Your task to perform on an android device: install app "Facebook" Image 0: 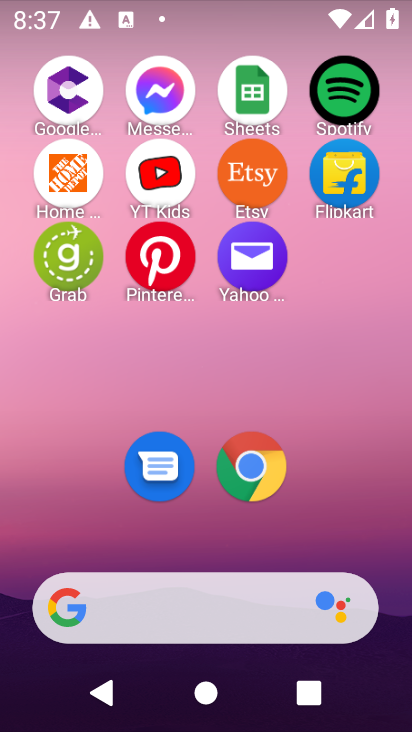
Step 0: drag from (230, 558) to (220, 98)
Your task to perform on an android device: install app "Facebook" Image 1: 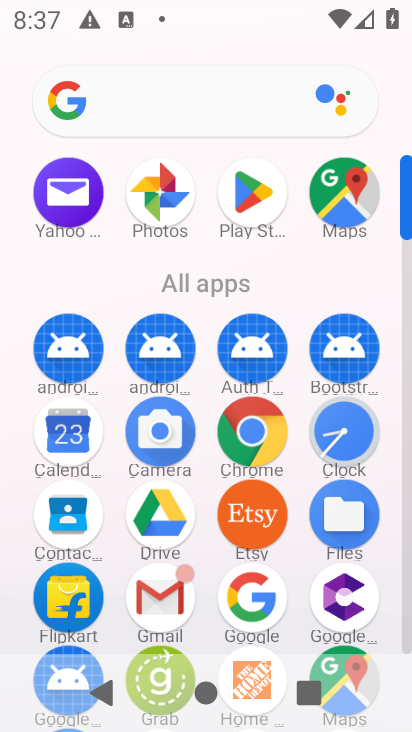
Step 1: click (249, 188)
Your task to perform on an android device: install app "Facebook" Image 2: 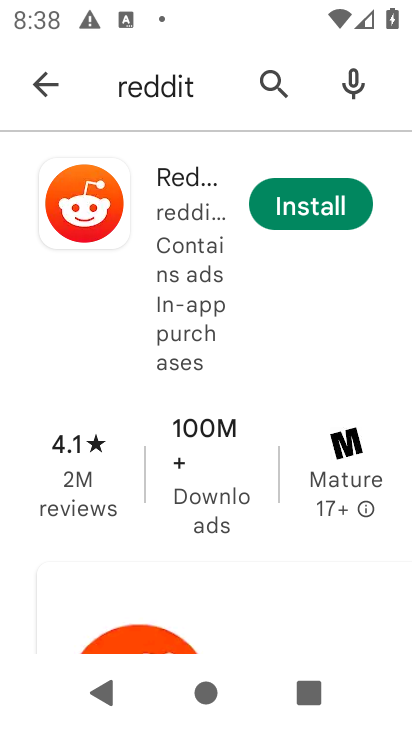
Step 2: click (291, 73)
Your task to perform on an android device: install app "Facebook" Image 3: 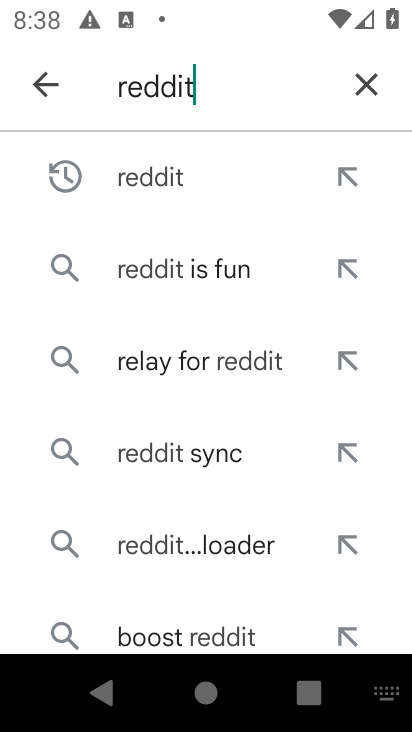
Step 3: click (380, 84)
Your task to perform on an android device: install app "Facebook" Image 4: 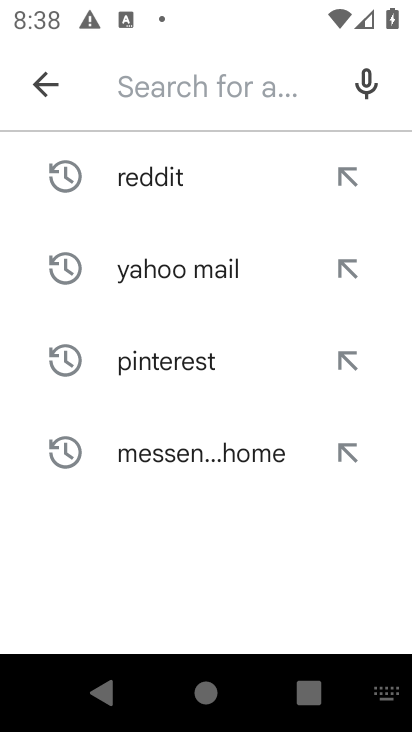
Step 4: type "facebook"
Your task to perform on an android device: install app "Facebook" Image 5: 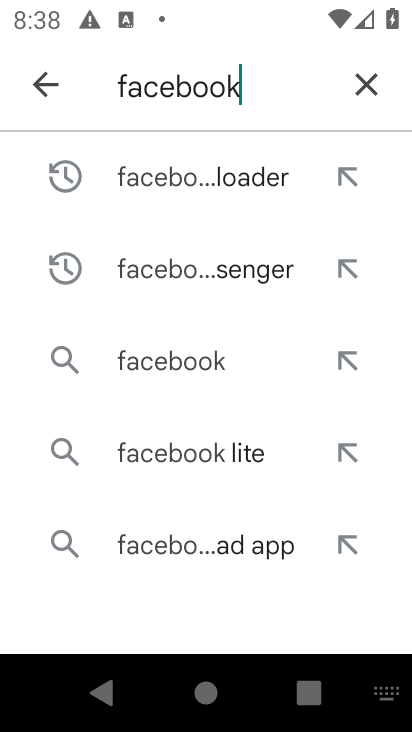
Step 5: click (172, 362)
Your task to perform on an android device: install app "Facebook" Image 6: 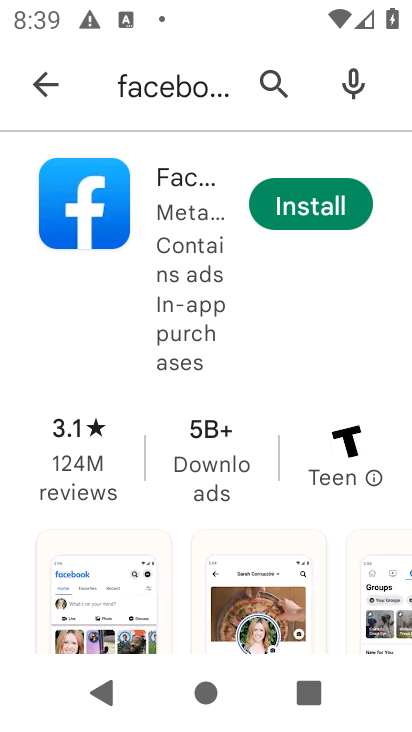
Step 6: click (303, 202)
Your task to perform on an android device: install app "Facebook" Image 7: 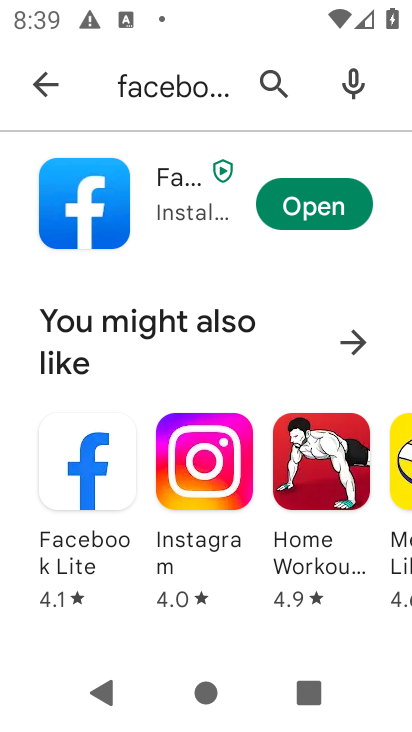
Step 7: task complete